Your task to perform on an android device: What is the recent news? Image 0: 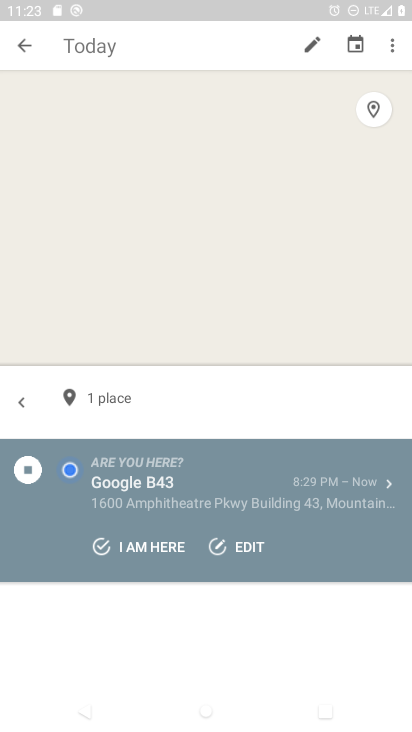
Step 0: press home button
Your task to perform on an android device: What is the recent news? Image 1: 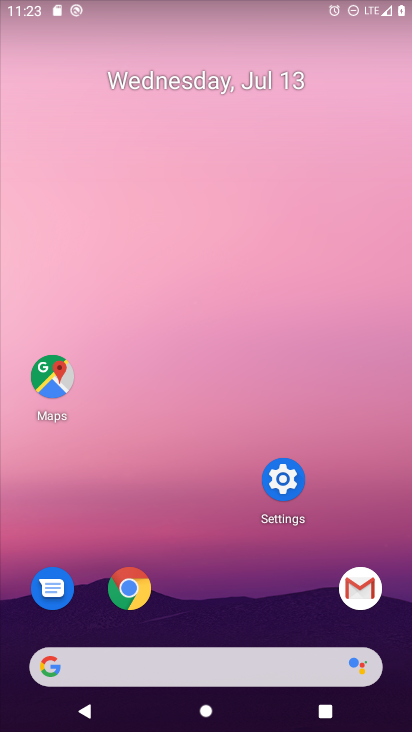
Step 1: click (180, 664)
Your task to perform on an android device: What is the recent news? Image 2: 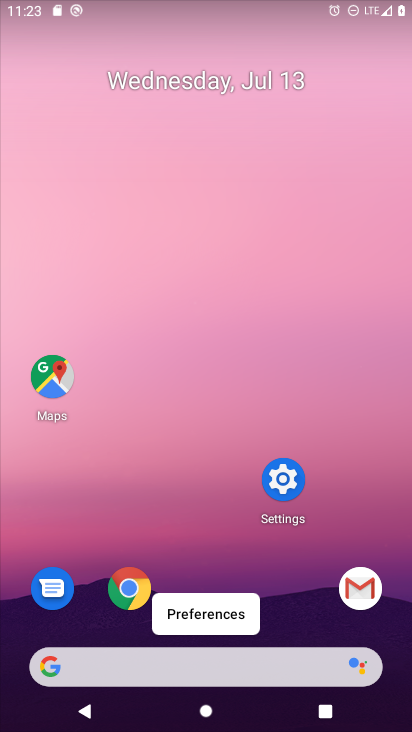
Step 2: click (130, 678)
Your task to perform on an android device: What is the recent news? Image 3: 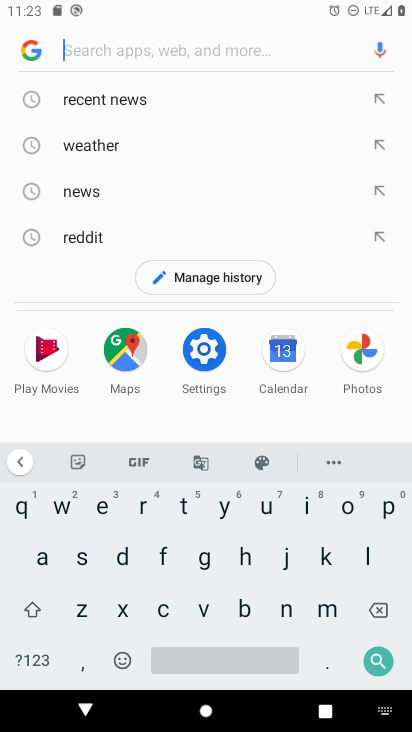
Step 3: click (122, 103)
Your task to perform on an android device: What is the recent news? Image 4: 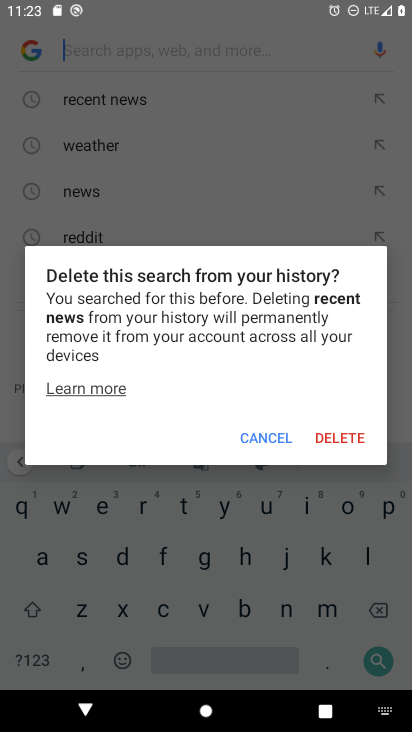
Step 4: click (246, 443)
Your task to perform on an android device: What is the recent news? Image 5: 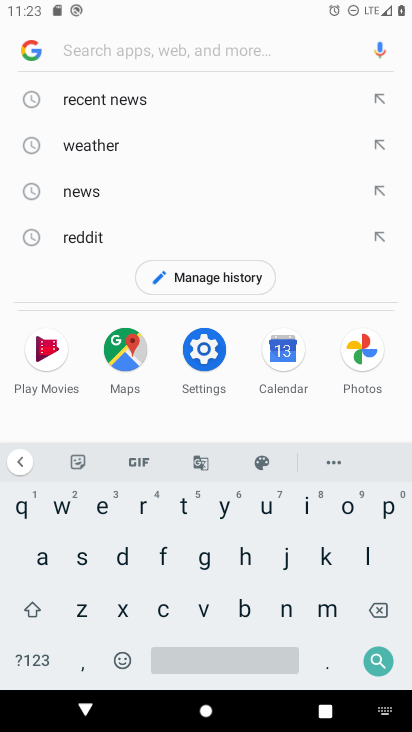
Step 5: click (104, 108)
Your task to perform on an android device: What is the recent news? Image 6: 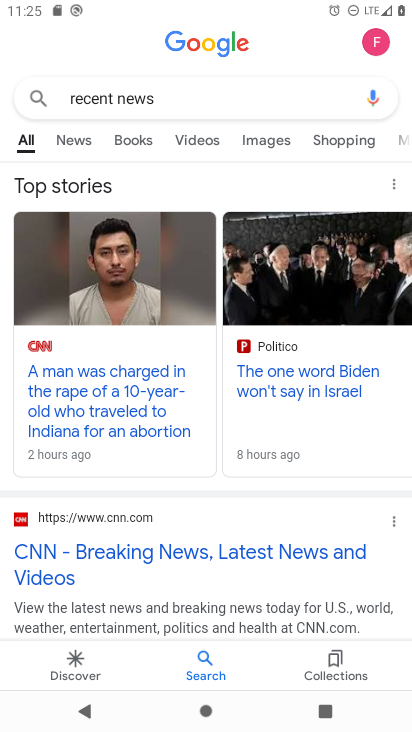
Step 6: task complete